Your task to perform on an android device: Go to Yahoo.com Image 0: 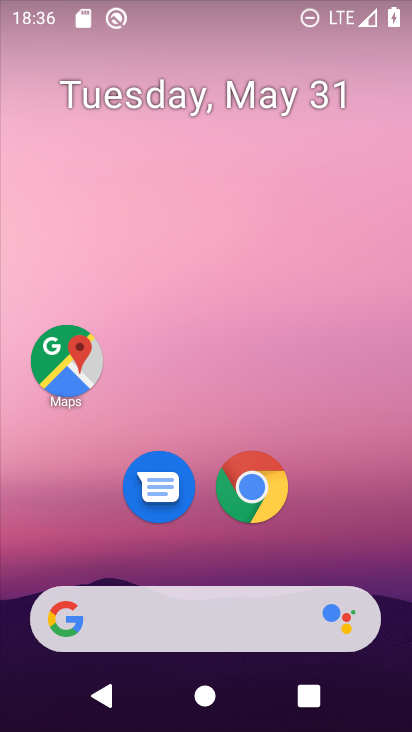
Step 0: click (240, 474)
Your task to perform on an android device: Go to Yahoo.com Image 1: 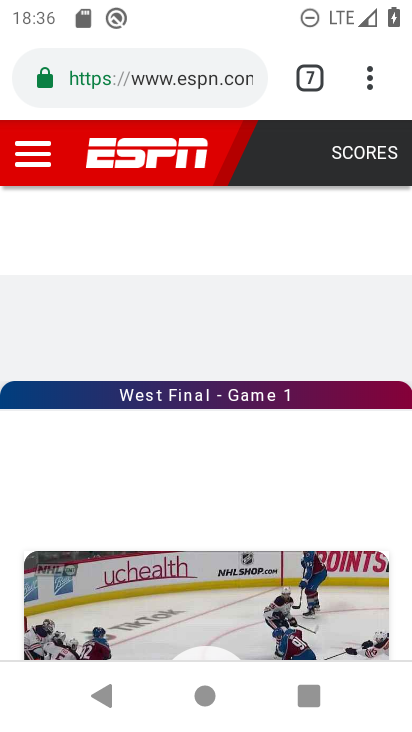
Step 1: click (368, 83)
Your task to perform on an android device: Go to Yahoo.com Image 2: 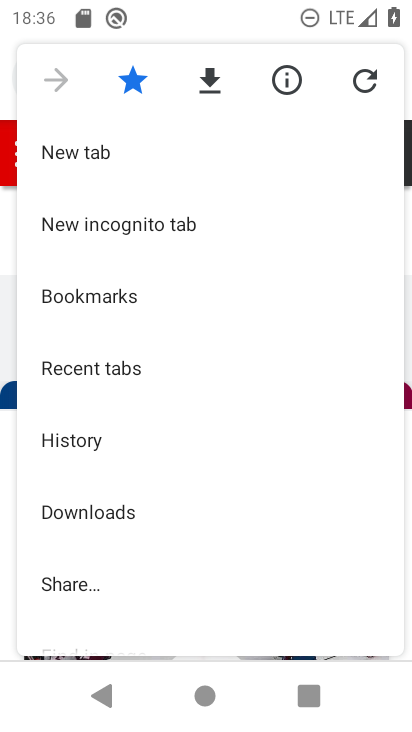
Step 2: click (80, 150)
Your task to perform on an android device: Go to Yahoo.com Image 3: 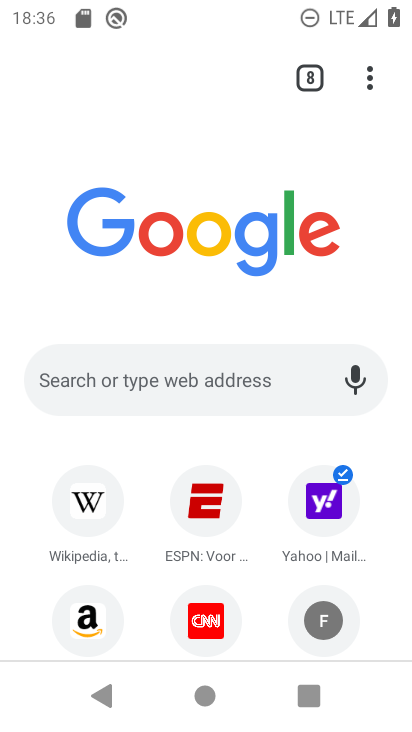
Step 3: click (303, 502)
Your task to perform on an android device: Go to Yahoo.com Image 4: 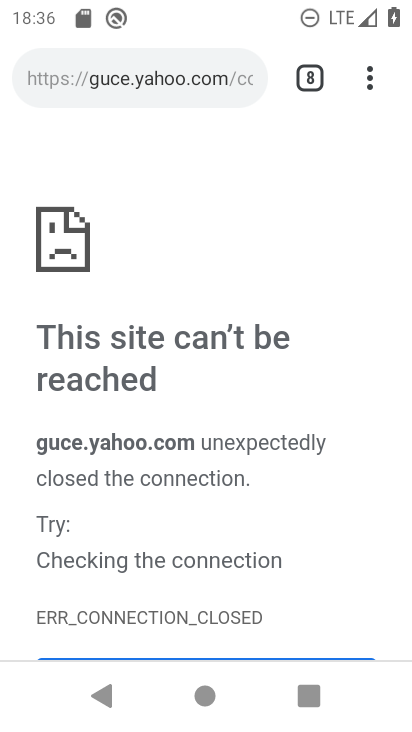
Step 4: task complete